Your task to perform on an android device: turn pop-ups on in chrome Image 0: 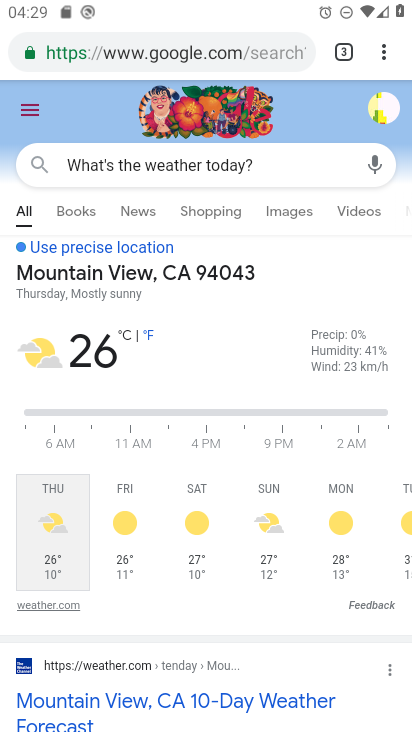
Step 0: click (386, 44)
Your task to perform on an android device: turn pop-ups on in chrome Image 1: 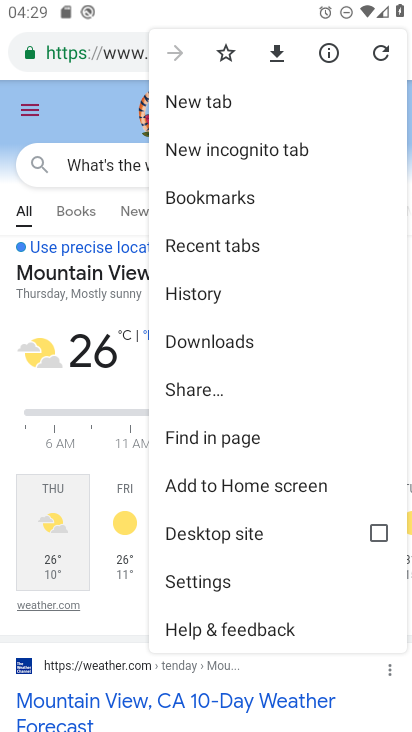
Step 1: click (320, 575)
Your task to perform on an android device: turn pop-ups on in chrome Image 2: 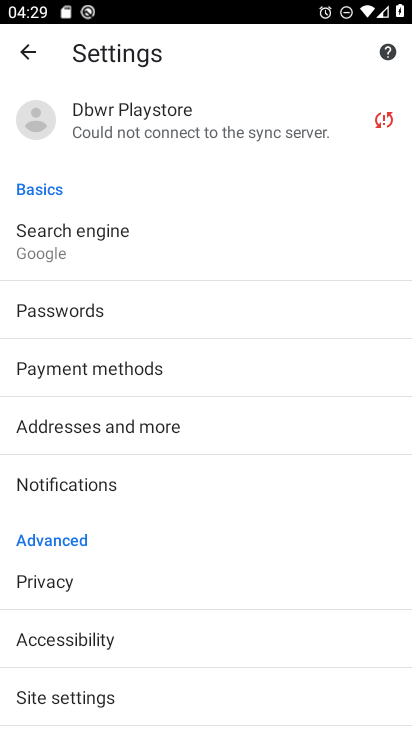
Step 2: click (291, 692)
Your task to perform on an android device: turn pop-ups on in chrome Image 3: 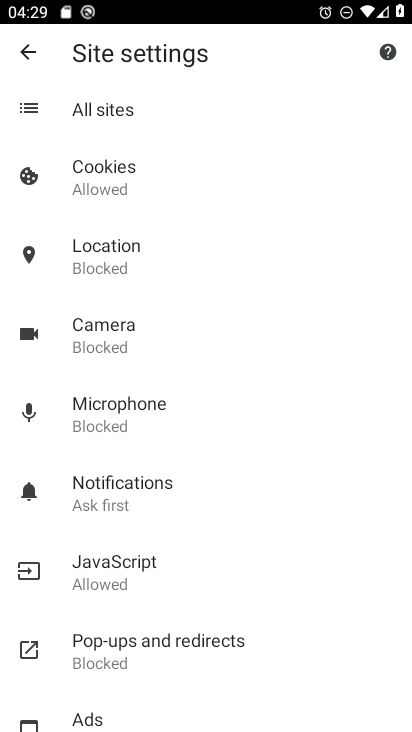
Step 3: click (277, 654)
Your task to perform on an android device: turn pop-ups on in chrome Image 4: 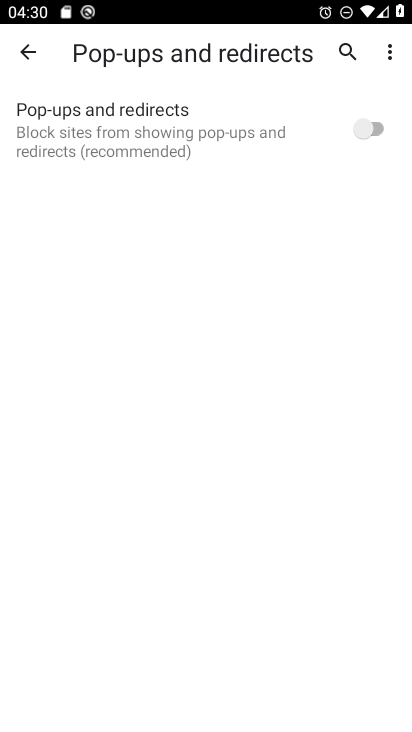
Step 4: click (373, 116)
Your task to perform on an android device: turn pop-ups on in chrome Image 5: 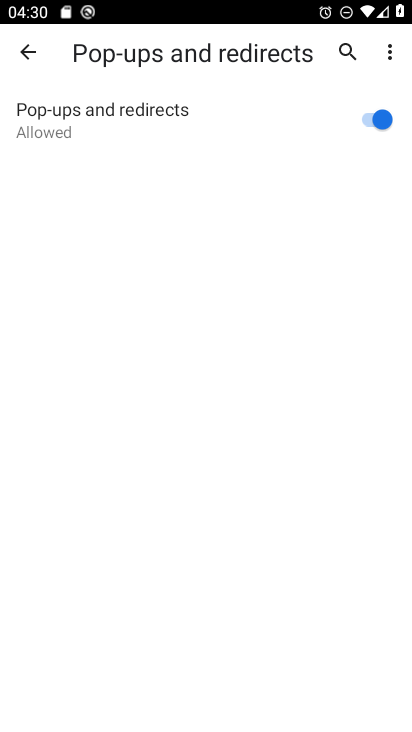
Step 5: task complete